Your task to perform on an android device: Go to battery settings Image 0: 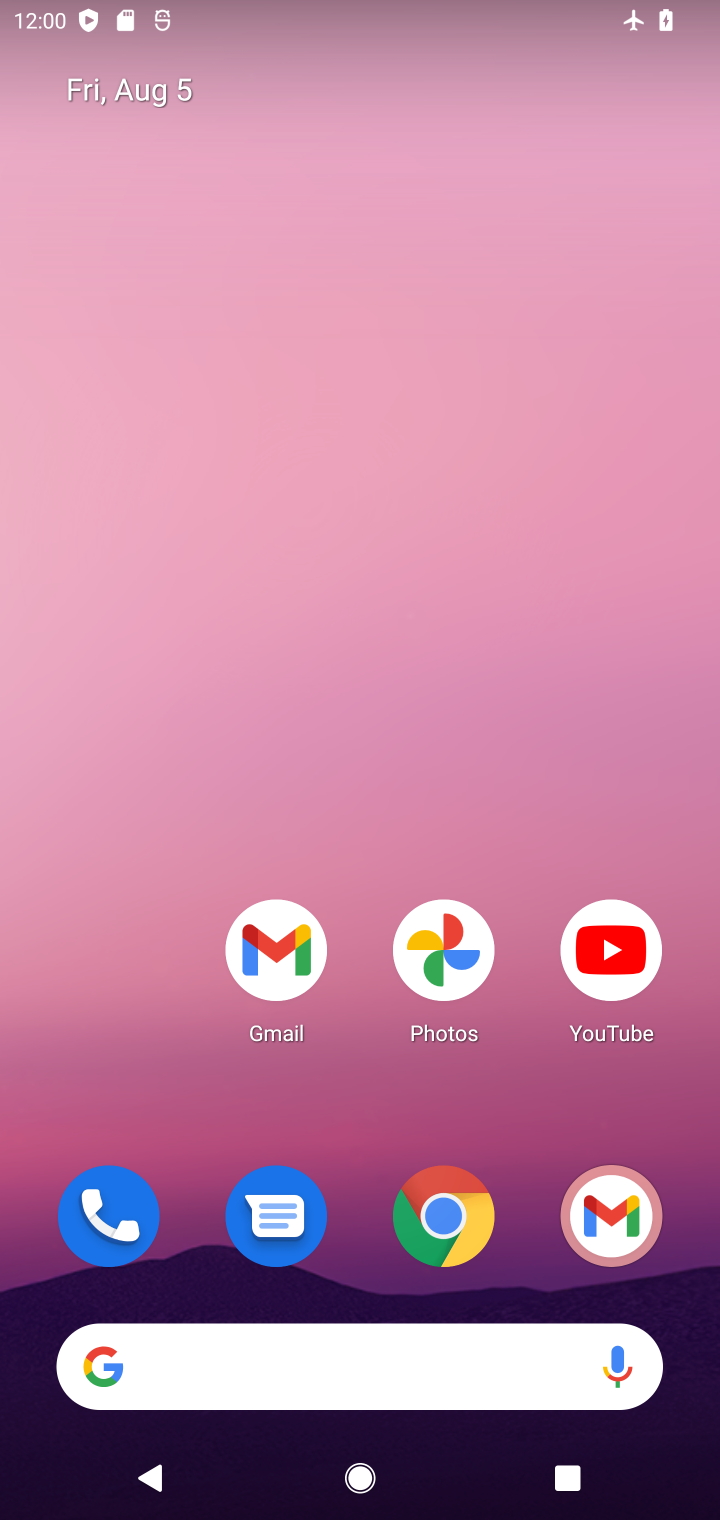
Step 0: drag from (449, 1340) to (446, 188)
Your task to perform on an android device: Go to battery settings Image 1: 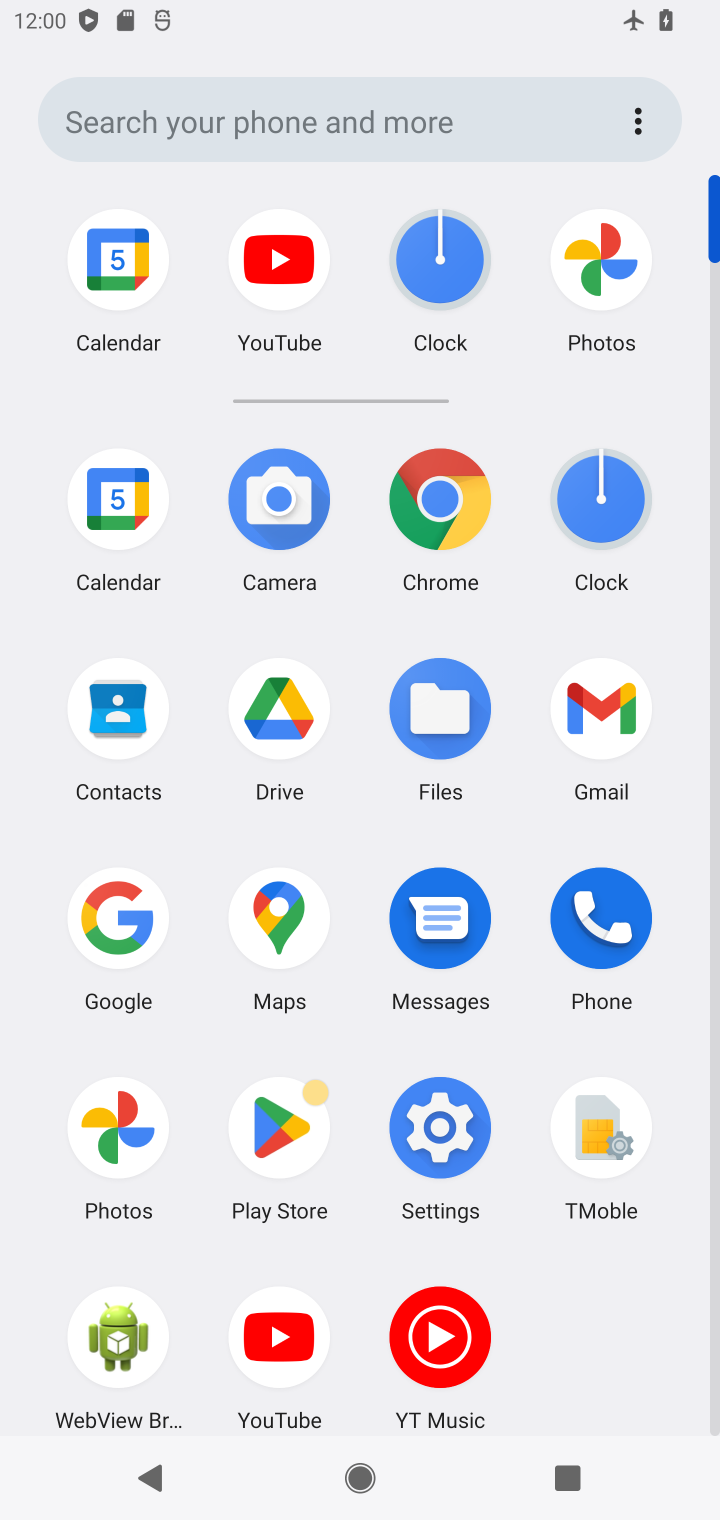
Step 1: click (459, 1142)
Your task to perform on an android device: Go to battery settings Image 2: 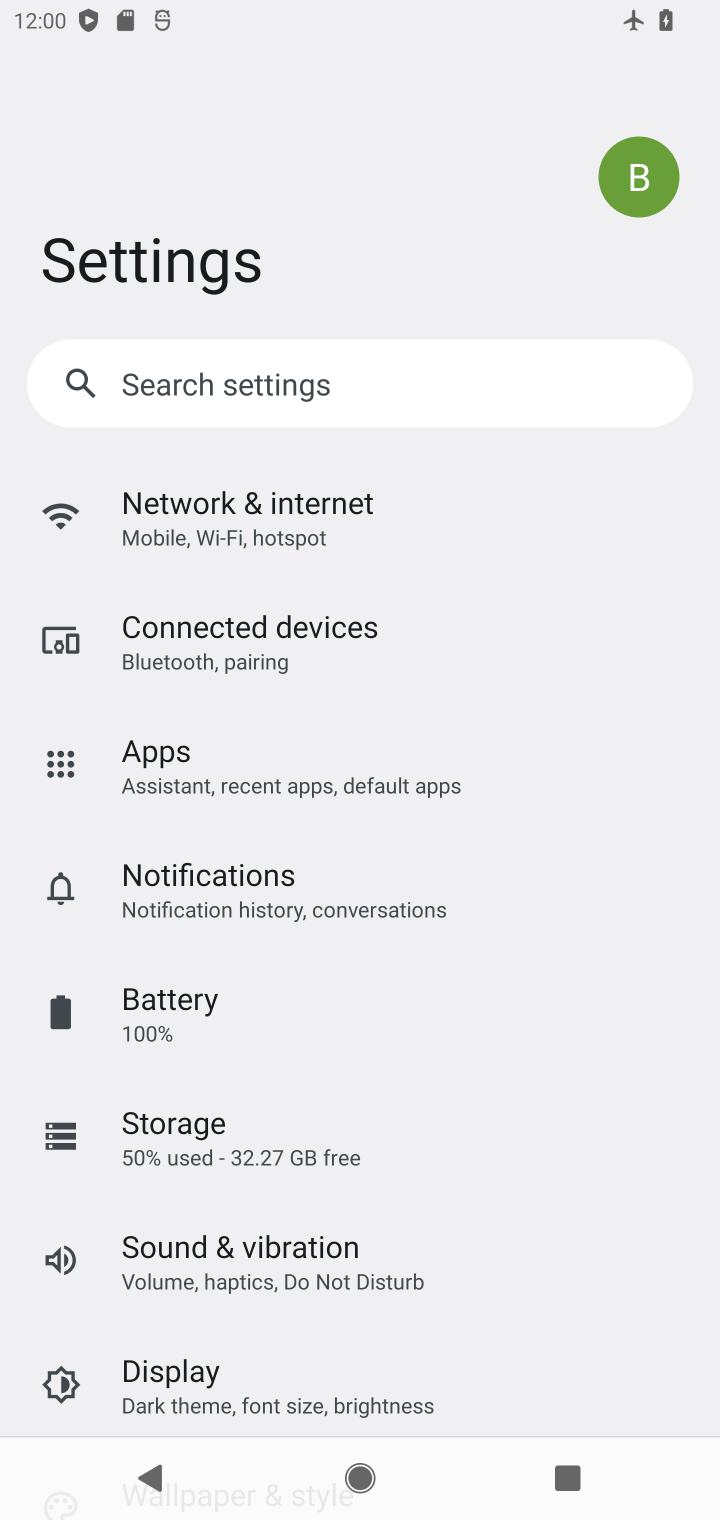
Step 2: click (242, 1019)
Your task to perform on an android device: Go to battery settings Image 3: 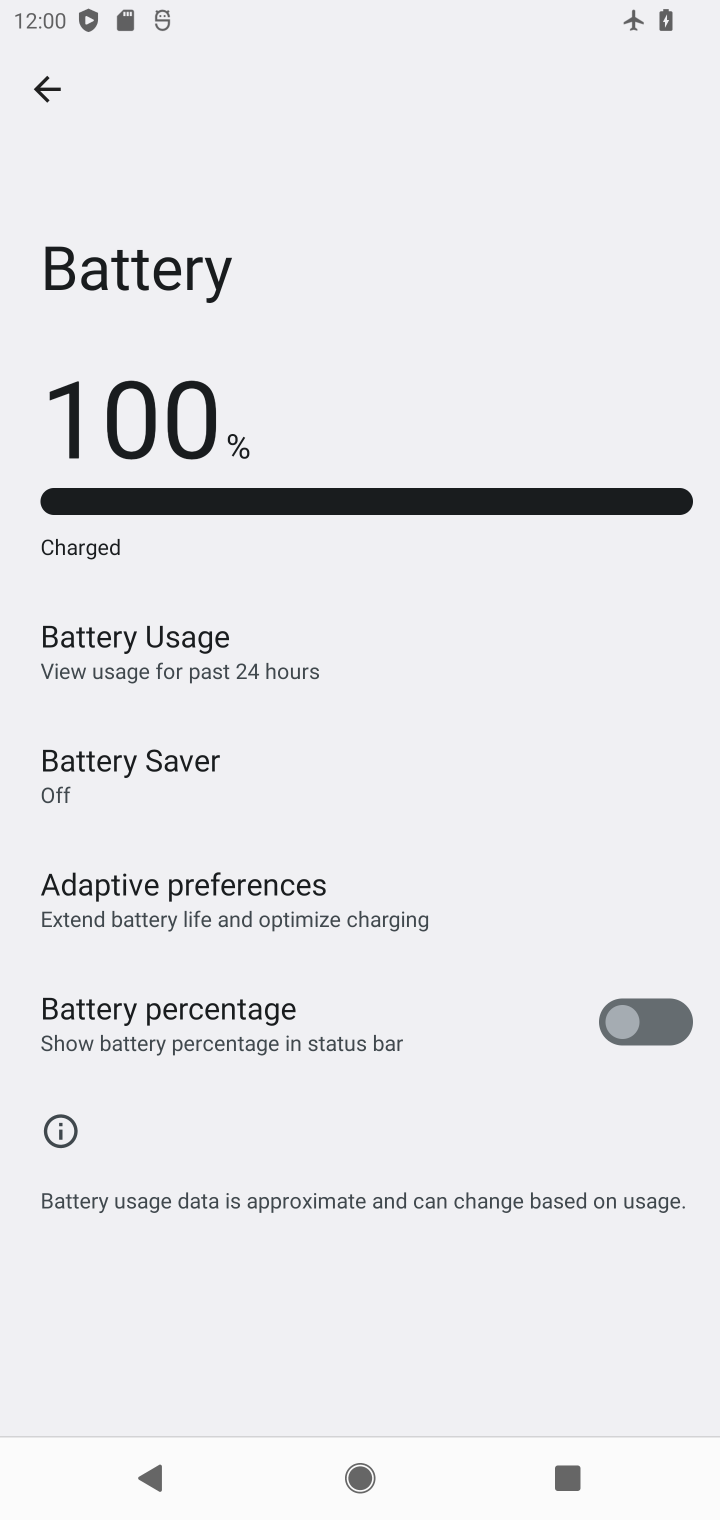
Step 3: task complete